Your task to perform on an android device: What's the weather going to be this weekend? Image 0: 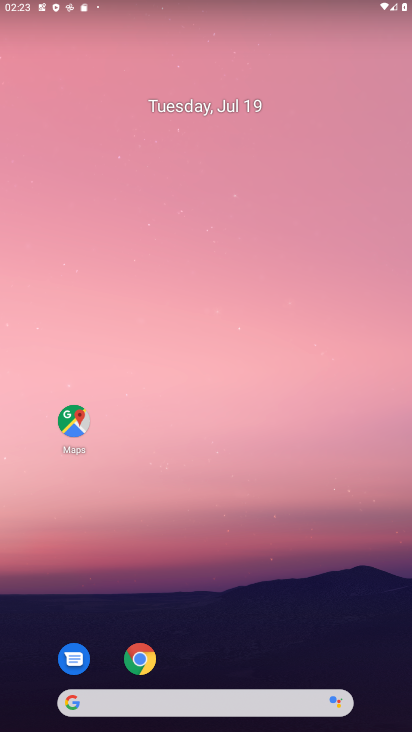
Step 0: press home button
Your task to perform on an android device: What's the weather going to be this weekend? Image 1: 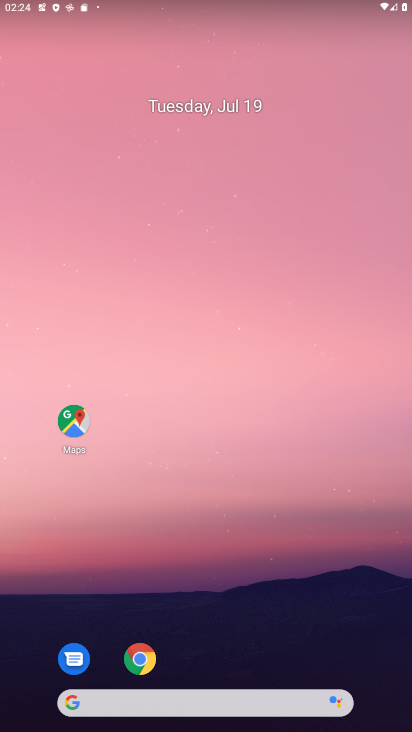
Step 1: click (127, 657)
Your task to perform on an android device: What's the weather going to be this weekend? Image 2: 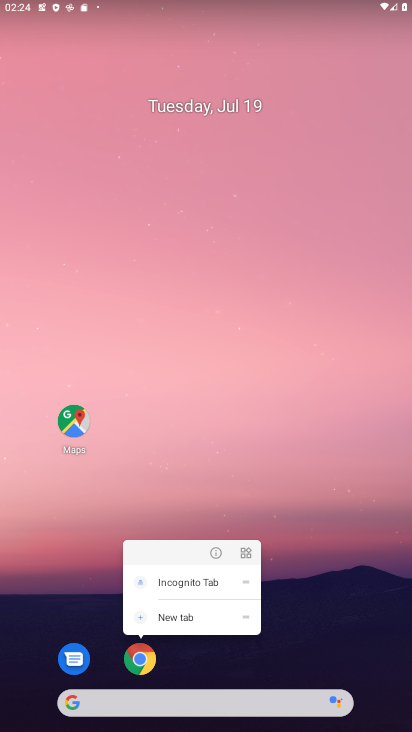
Step 2: click (127, 657)
Your task to perform on an android device: What's the weather going to be this weekend? Image 3: 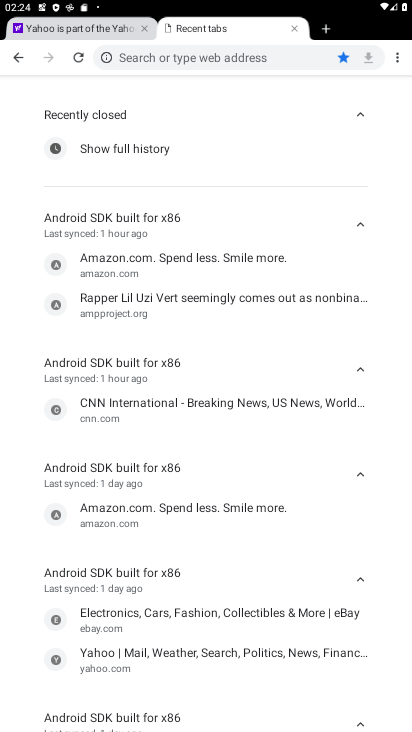
Step 3: click (217, 55)
Your task to perform on an android device: What's the weather going to be this weekend? Image 4: 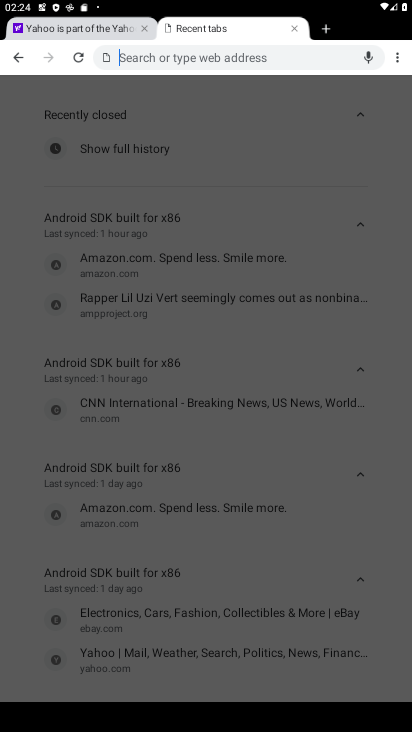
Step 4: click (197, 67)
Your task to perform on an android device: What's the weather going to be this weekend? Image 5: 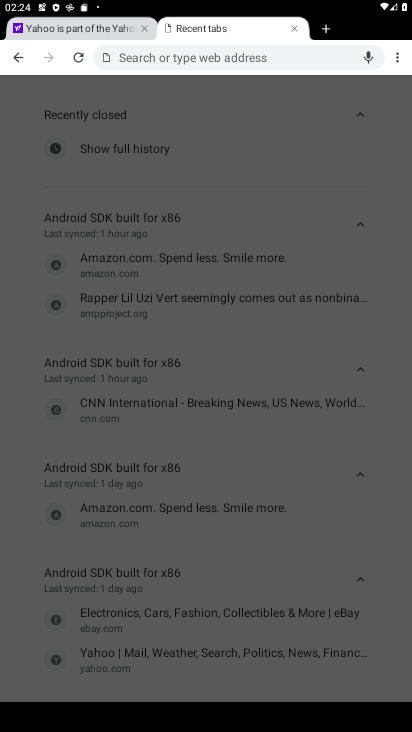
Step 5: type "What's the weather going to be this weekend?"
Your task to perform on an android device: What's the weather going to be this weekend? Image 6: 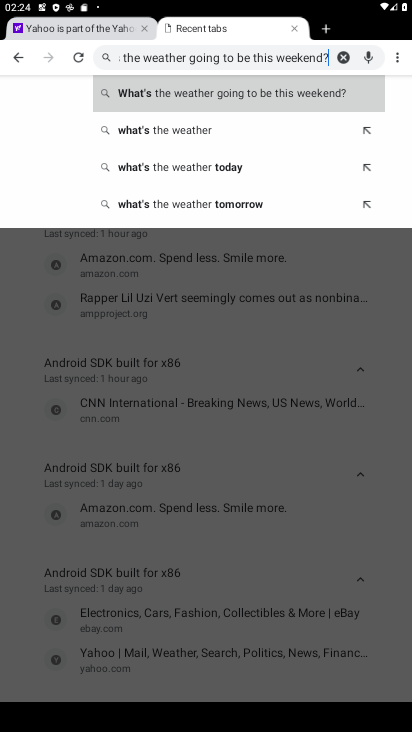
Step 6: type ""
Your task to perform on an android device: What's the weather going to be this weekend? Image 7: 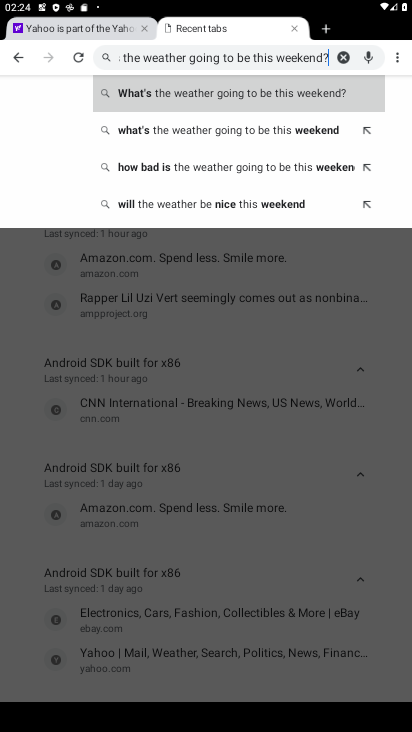
Step 7: click (313, 85)
Your task to perform on an android device: What's the weather going to be this weekend? Image 8: 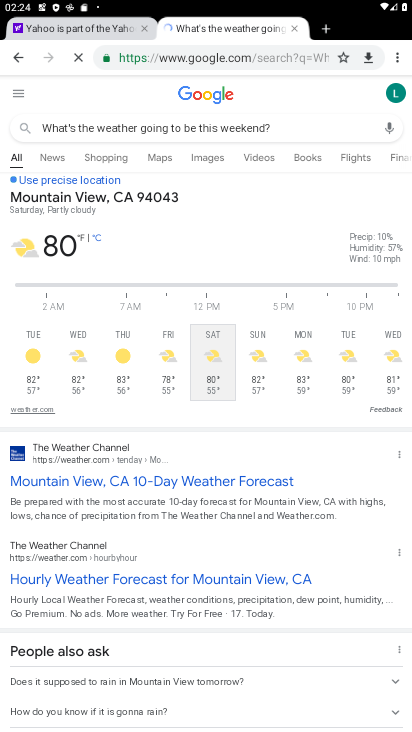
Step 8: task complete